Your task to perform on an android device: Turn off the flashlight Image 0: 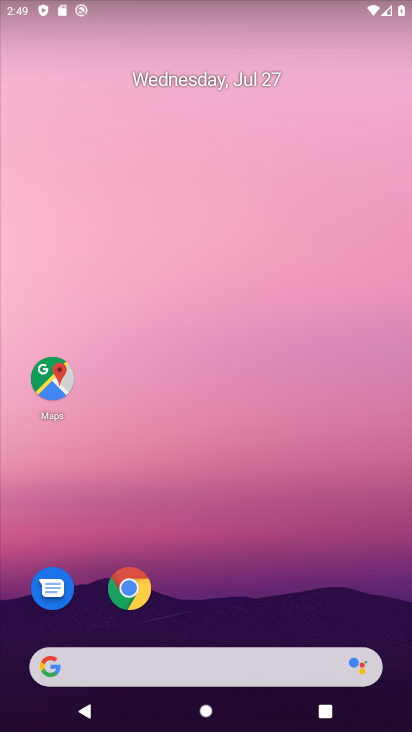
Step 0: press home button
Your task to perform on an android device: Turn off the flashlight Image 1: 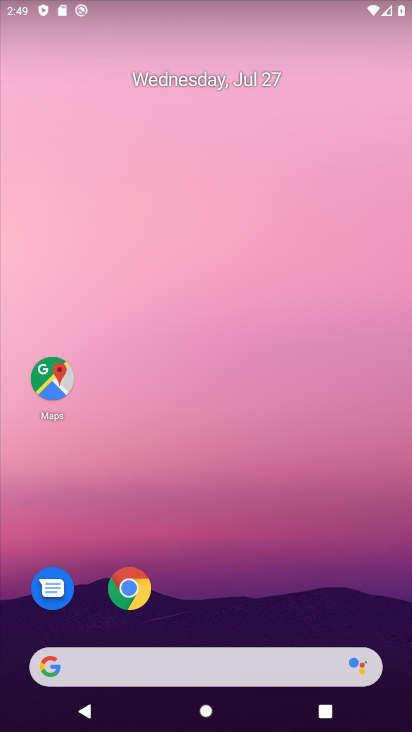
Step 1: drag from (215, 619) to (206, 128)
Your task to perform on an android device: Turn off the flashlight Image 2: 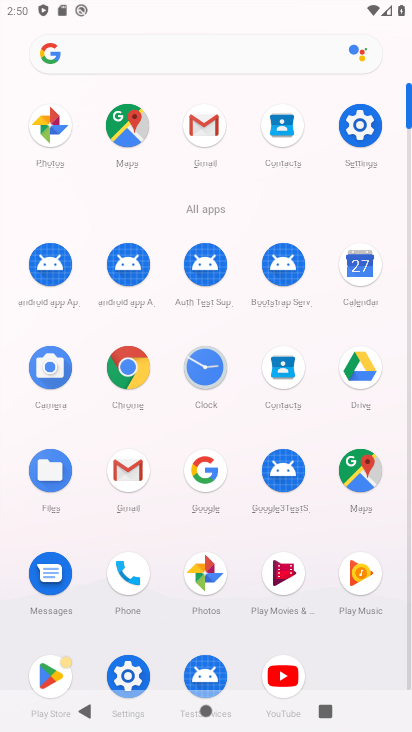
Step 2: click (346, 113)
Your task to perform on an android device: Turn off the flashlight Image 3: 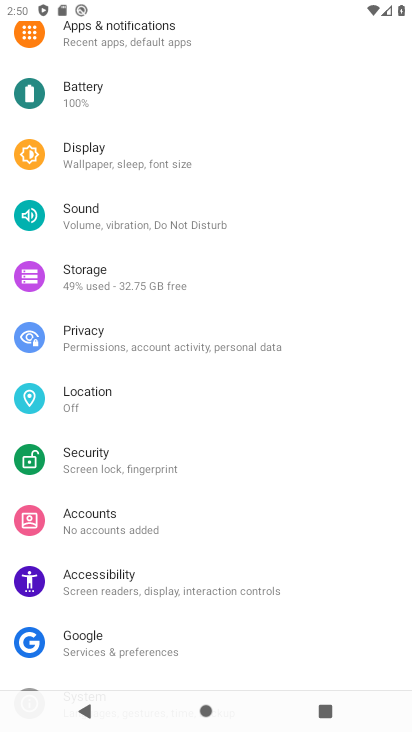
Step 3: drag from (128, 69) to (190, 587)
Your task to perform on an android device: Turn off the flashlight Image 4: 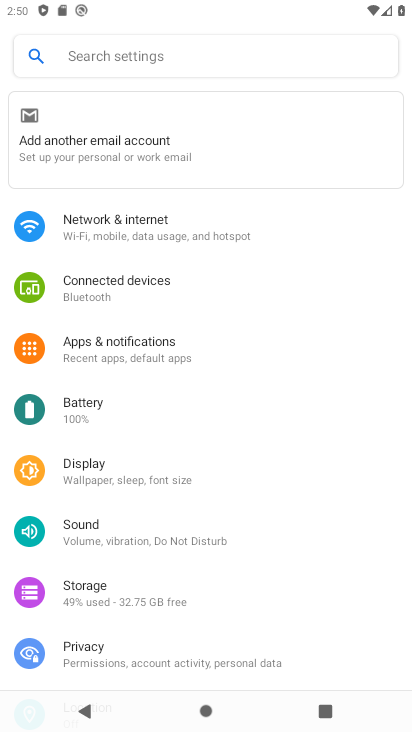
Step 4: click (58, 46)
Your task to perform on an android device: Turn off the flashlight Image 5: 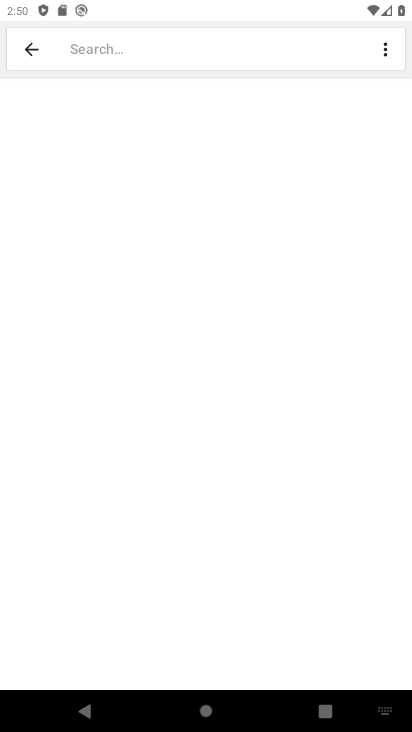
Step 5: type "flashlight"
Your task to perform on an android device: Turn off the flashlight Image 6: 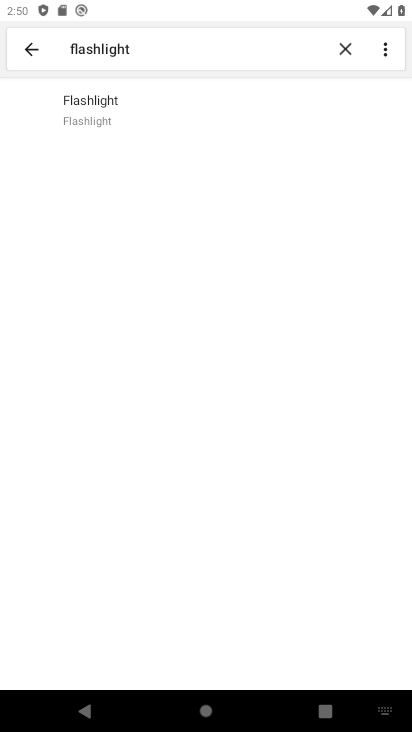
Step 6: click (161, 104)
Your task to perform on an android device: Turn off the flashlight Image 7: 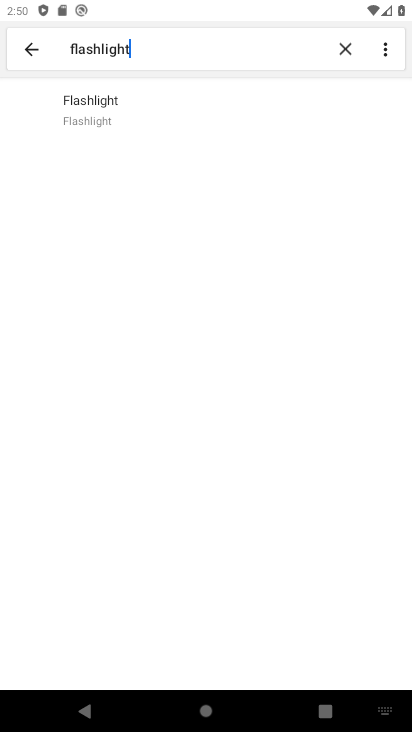
Step 7: click (122, 113)
Your task to perform on an android device: Turn off the flashlight Image 8: 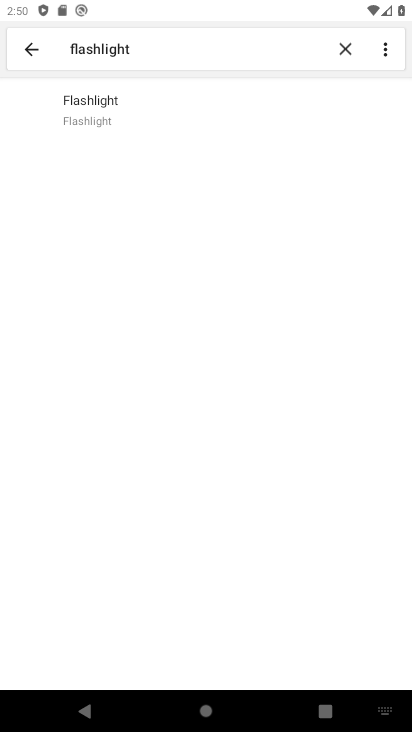
Step 8: task complete